Your task to perform on an android device: Search for vegetarian restaurants on Maps Image 0: 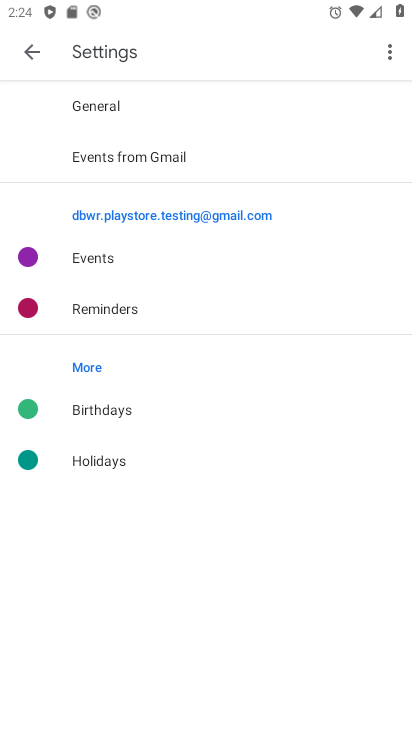
Step 0: press back button
Your task to perform on an android device: Search for vegetarian restaurants on Maps Image 1: 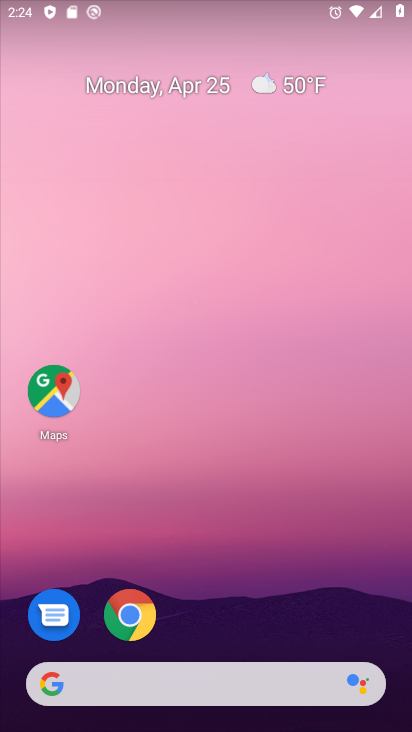
Step 1: click (53, 395)
Your task to perform on an android device: Search for vegetarian restaurants on Maps Image 2: 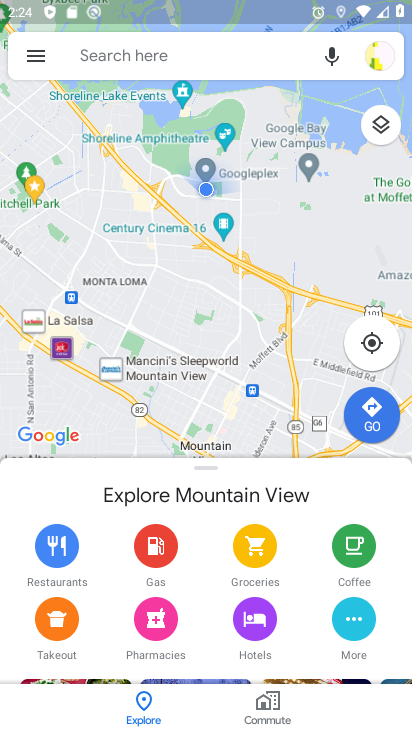
Step 2: click (236, 57)
Your task to perform on an android device: Search for vegetarian restaurants on Maps Image 3: 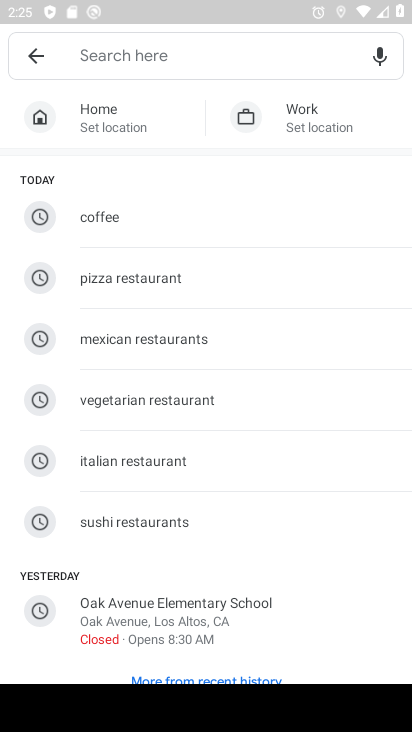
Step 3: type "vegetarian restaurants"
Your task to perform on an android device: Search for vegetarian restaurants on Maps Image 4: 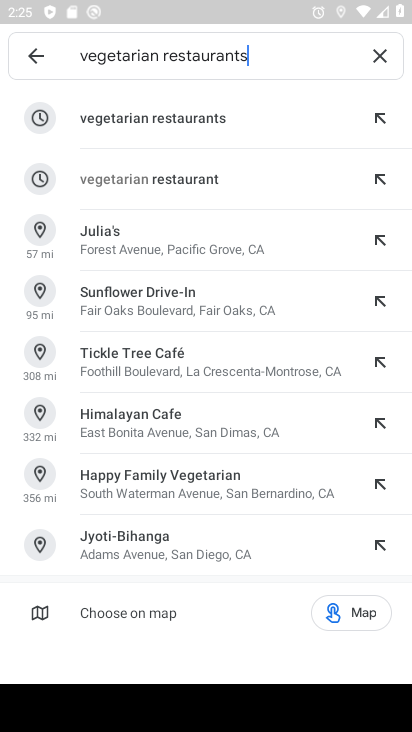
Step 4: click (153, 119)
Your task to perform on an android device: Search for vegetarian restaurants on Maps Image 5: 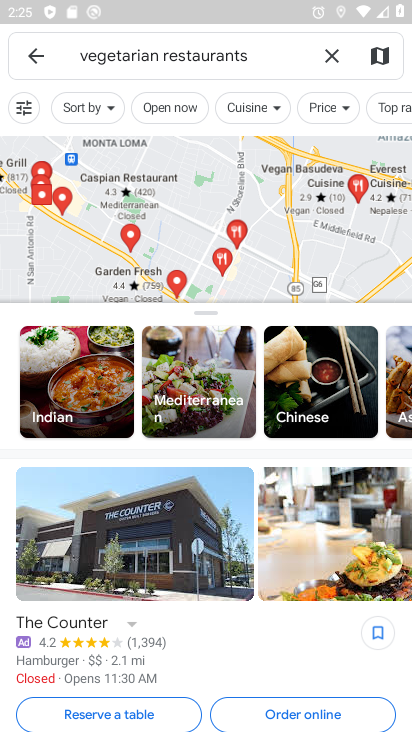
Step 5: task complete